Your task to perform on an android device: Go to Wikipedia Image 0: 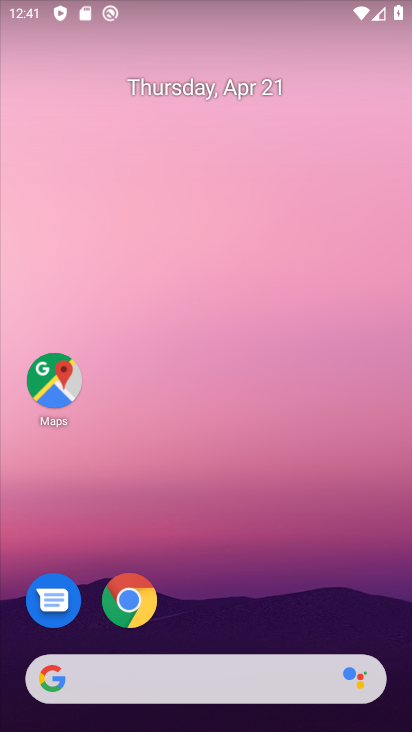
Step 0: click (130, 592)
Your task to perform on an android device: Go to Wikipedia Image 1: 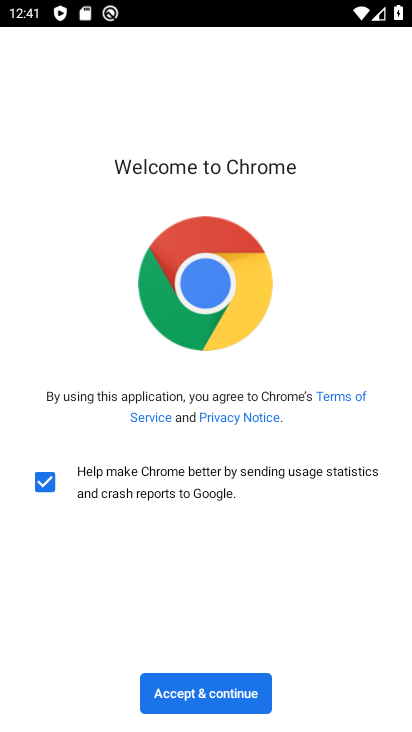
Step 1: click (188, 691)
Your task to perform on an android device: Go to Wikipedia Image 2: 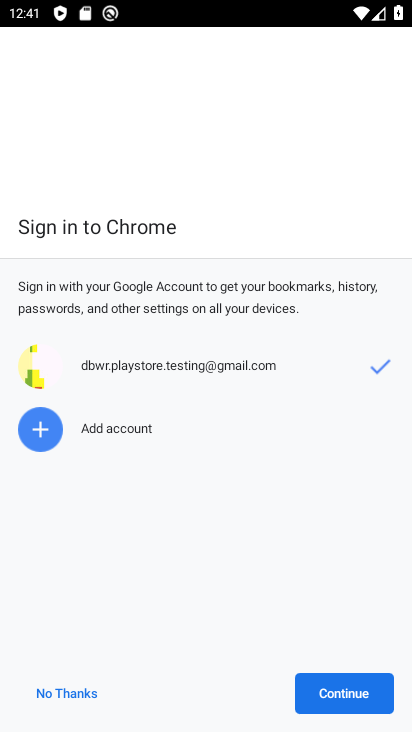
Step 2: click (365, 690)
Your task to perform on an android device: Go to Wikipedia Image 3: 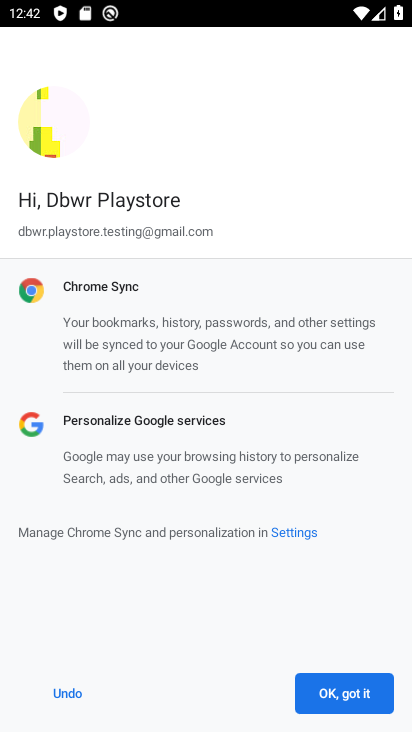
Step 3: click (362, 690)
Your task to perform on an android device: Go to Wikipedia Image 4: 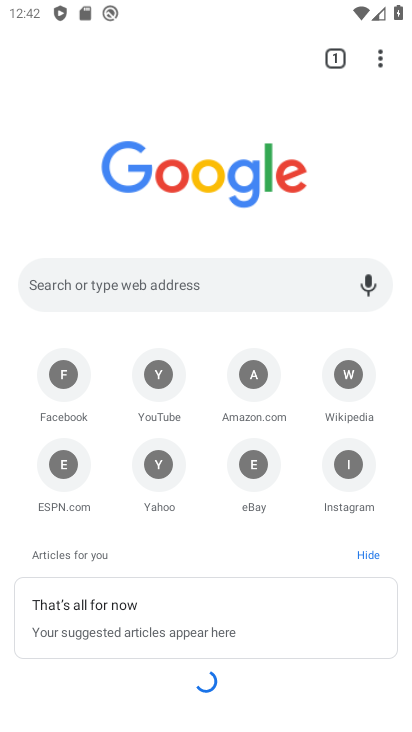
Step 4: click (115, 283)
Your task to perform on an android device: Go to Wikipedia Image 5: 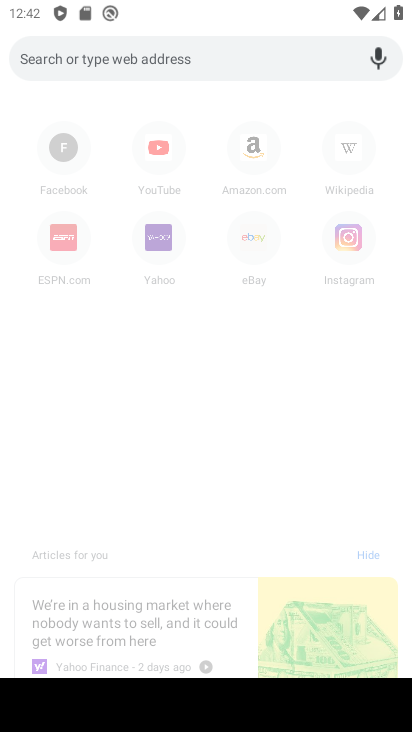
Step 5: type "Wikipedia"
Your task to perform on an android device: Go to Wikipedia Image 6: 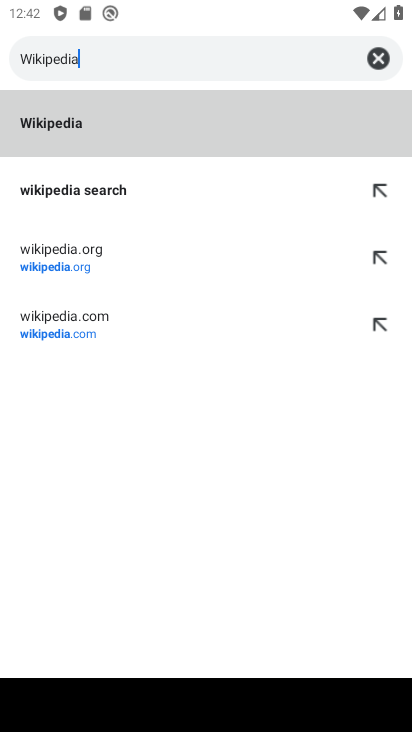
Step 6: click (138, 119)
Your task to perform on an android device: Go to Wikipedia Image 7: 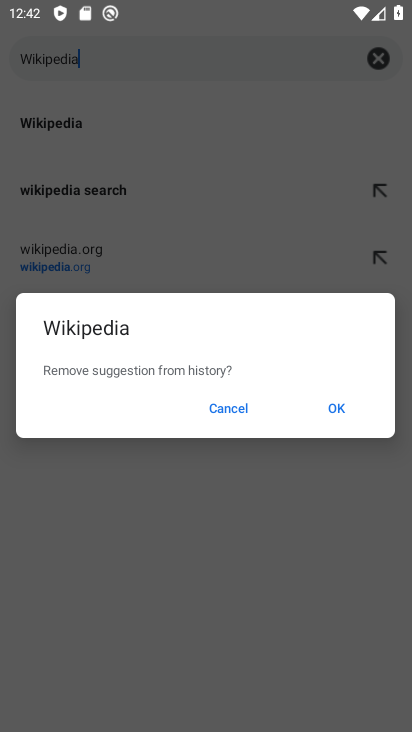
Step 7: click (332, 407)
Your task to perform on an android device: Go to Wikipedia Image 8: 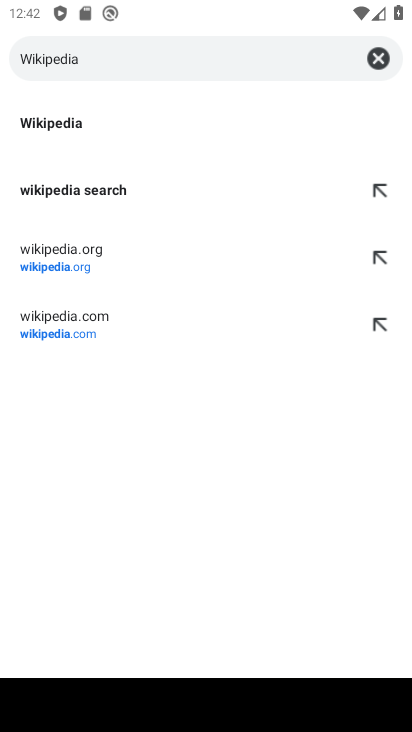
Step 8: click (47, 117)
Your task to perform on an android device: Go to Wikipedia Image 9: 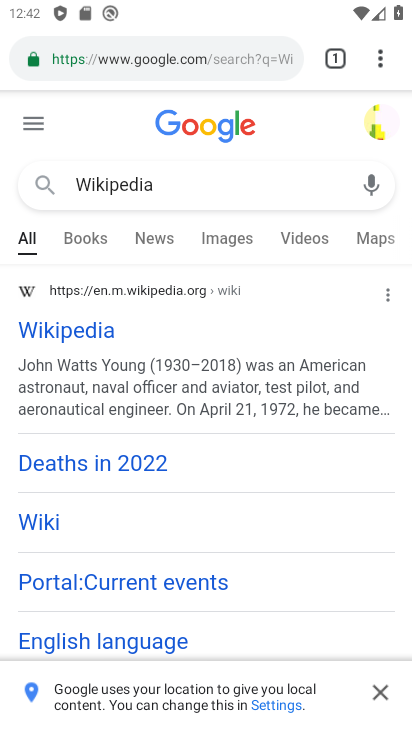
Step 9: task complete